Your task to perform on an android device: toggle airplane mode Image 0: 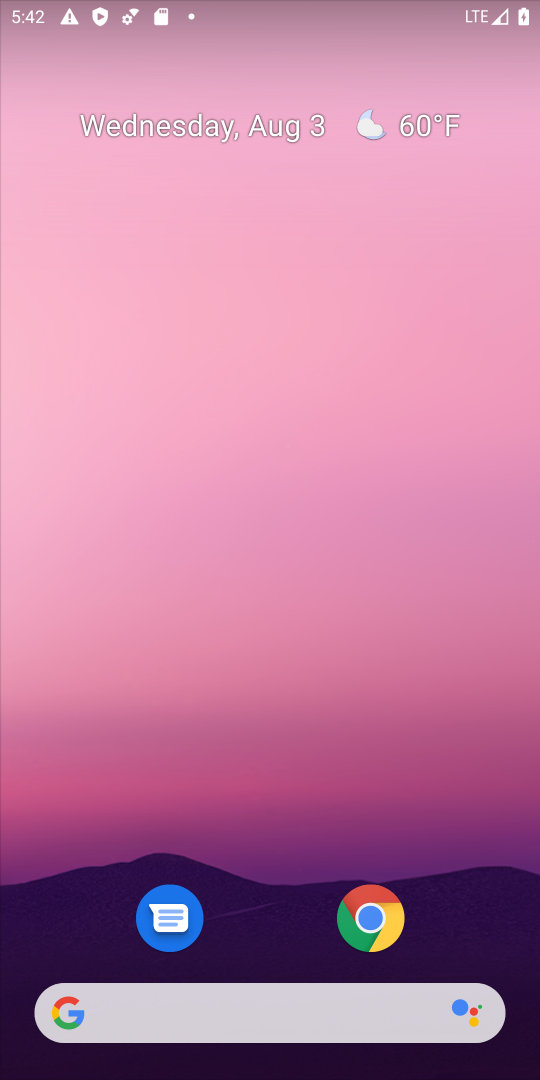
Step 0: drag from (283, 999) to (296, 287)
Your task to perform on an android device: toggle airplane mode Image 1: 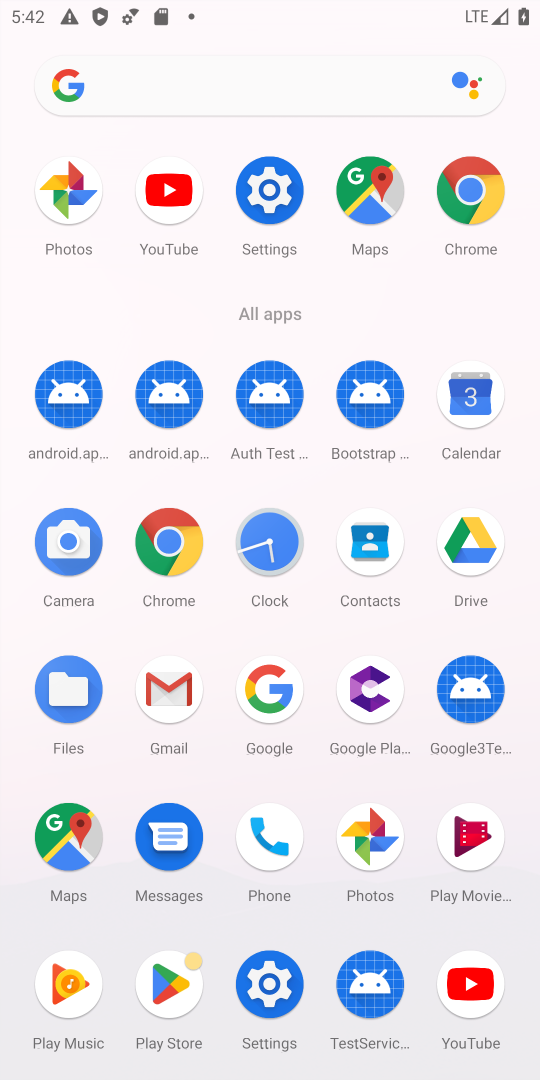
Step 1: click (255, 204)
Your task to perform on an android device: toggle airplane mode Image 2: 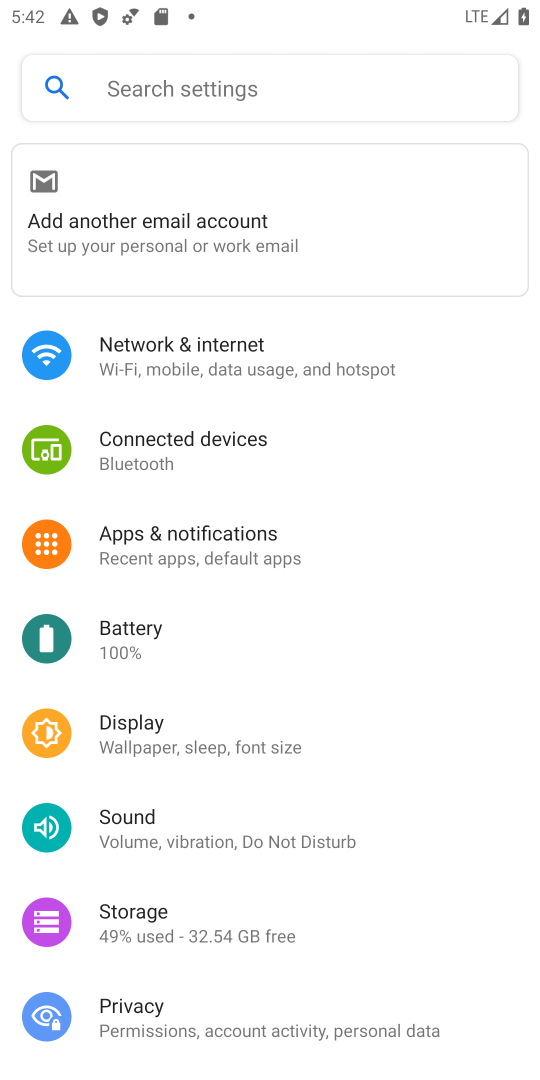
Step 2: click (93, 381)
Your task to perform on an android device: toggle airplane mode Image 3: 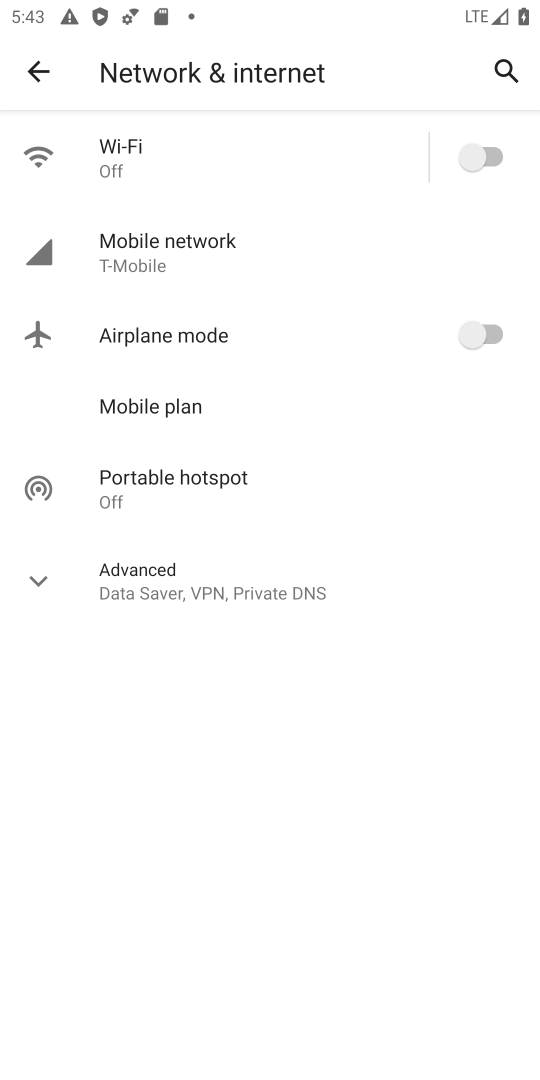
Step 3: click (477, 335)
Your task to perform on an android device: toggle airplane mode Image 4: 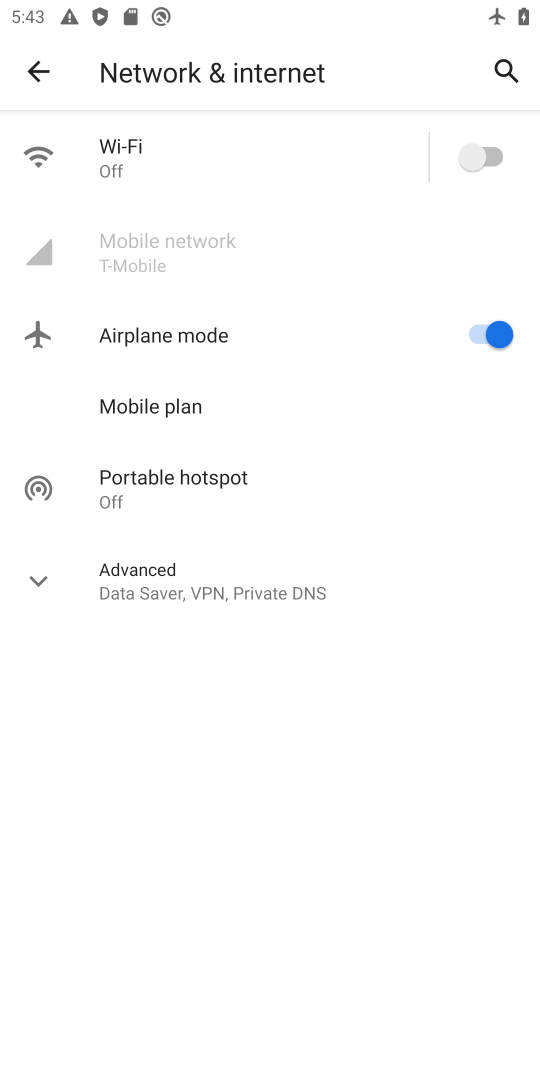
Step 4: task complete